Your task to perform on an android device: Open Maps and search for coffee Image 0: 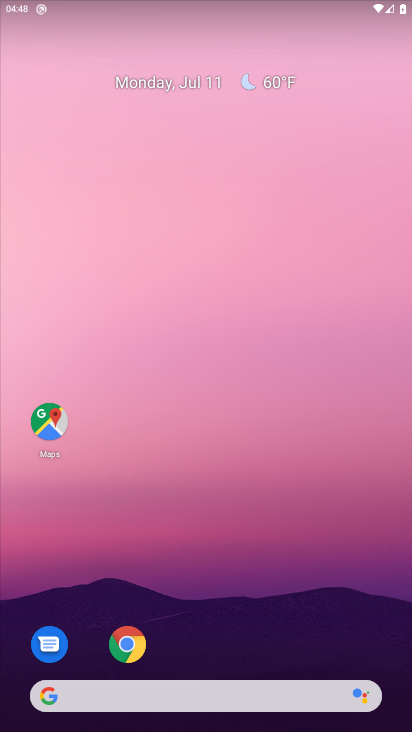
Step 0: click (55, 433)
Your task to perform on an android device: Open Maps and search for coffee Image 1: 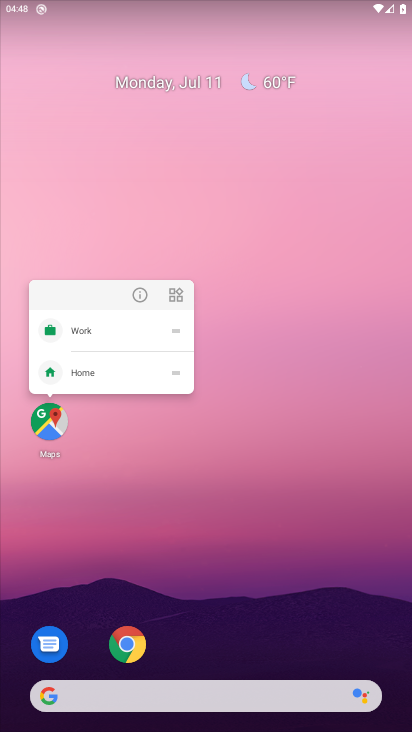
Step 1: click (55, 433)
Your task to perform on an android device: Open Maps and search for coffee Image 2: 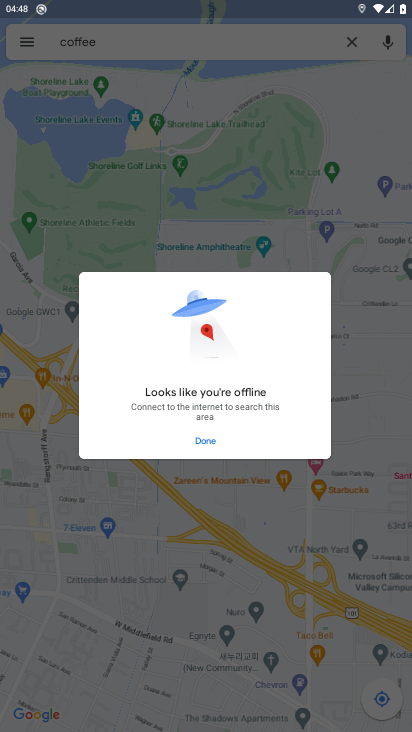
Step 2: click (190, 435)
Your task to perform on an android device: Open Maps and search for coffee Image 3: 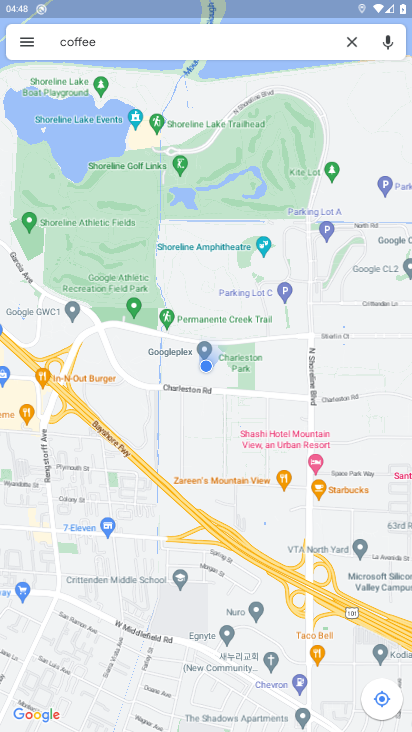
Step 3: click (150, 50)
Your task to perform on an android device: Open Maps and search for coffee Image 4: 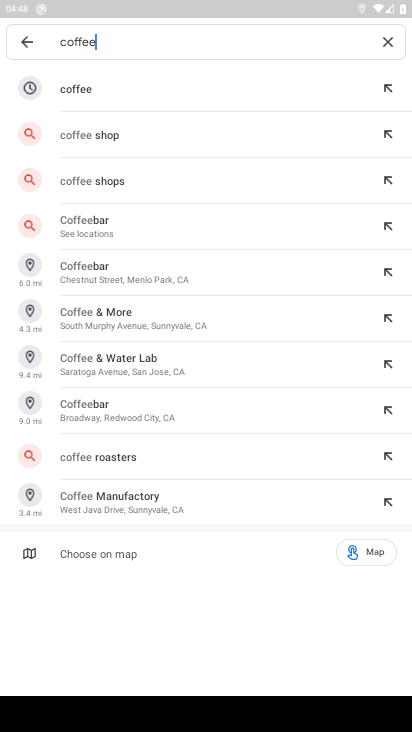
Step 4: click (93, 92)
Your task to perform on an android device: Open Maps and search for coffee Image 5: 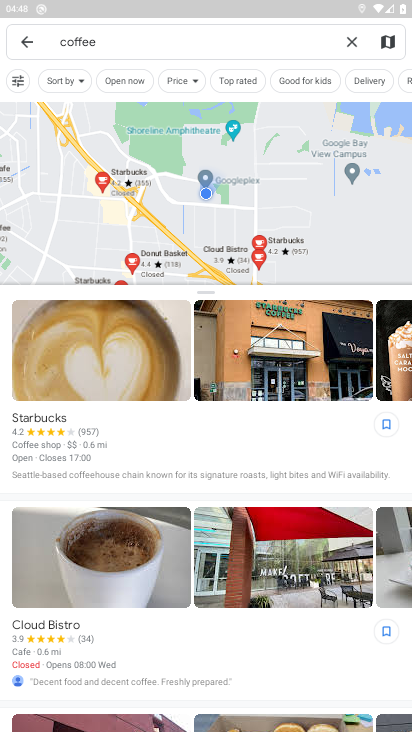
Step 5: task complete